Your task to perform on an android device: turn notification dots on Image 0: 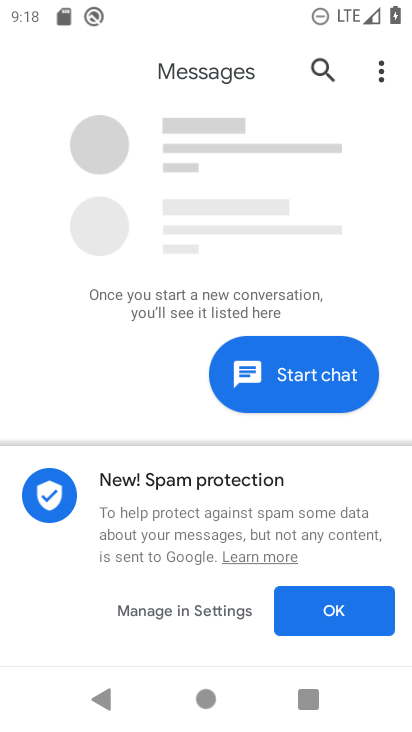
Step 0: press home button
Your task to perform on an android device: turn notification dots on Image 1: 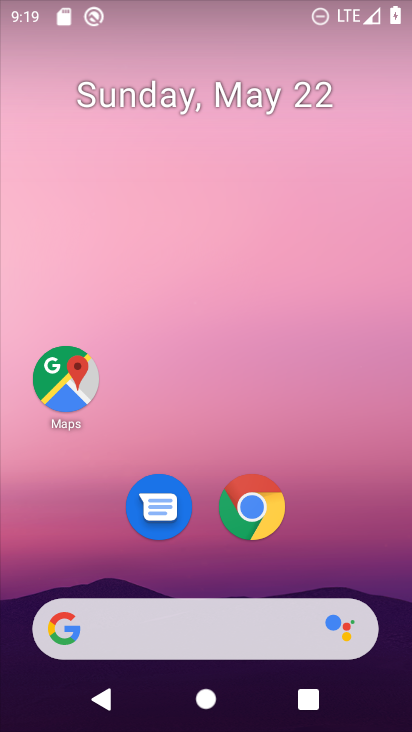
Step 1: drag from (274, 698) to (156, 3)
Your task to perform on an android device: turn notification dots on Image 2: 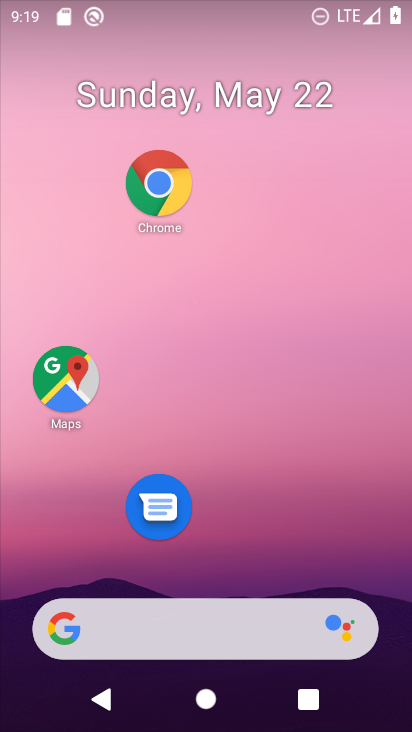
Step 2: drag from (239, 711) to (249, 6)
Your task to perform on an android device: turn notification dots on Image 3: 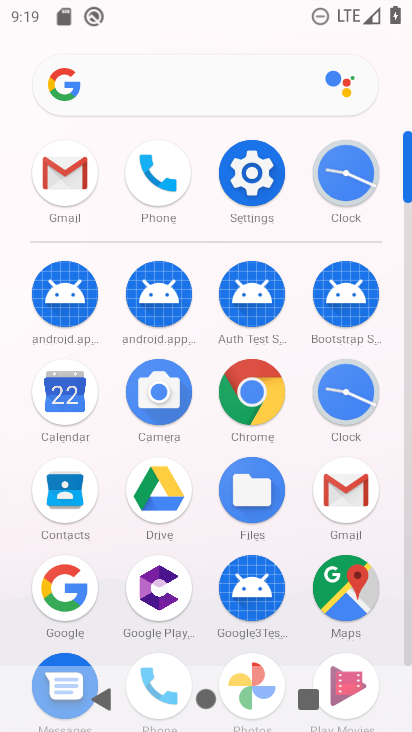
Step 3: click (257, 172)
Your task to perform on an android device: turn notification dots on Image 4: 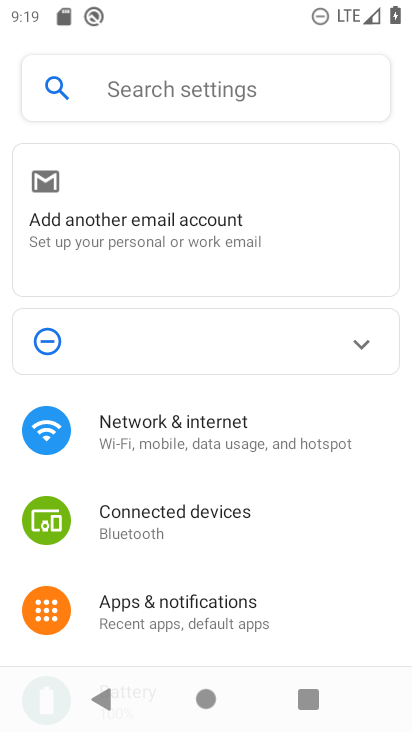
Step 4: click (237, 614)
Your task to perform on an android device: turn notification dots on Image 5: 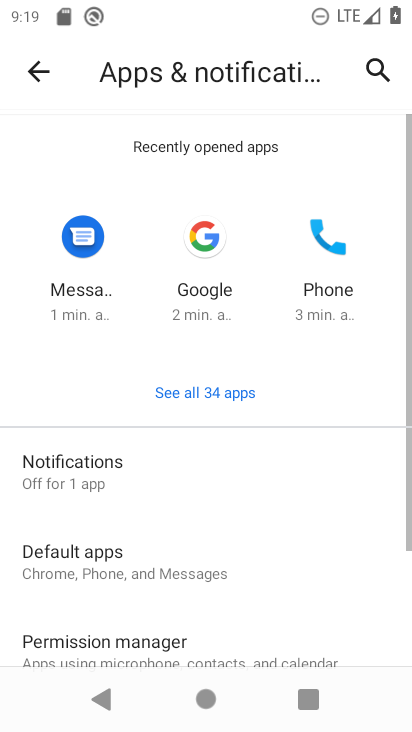
Step 5: click (95, 466)
Your task to perform on an android device: turn notification dots on Image 6: 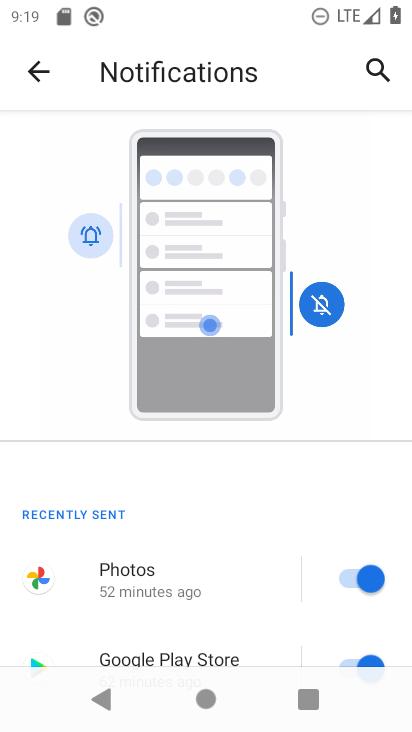
Step 6: drag from (202, 636) to (178, 72)
Your task to perform on an android device: turn notification dots on Image 7: 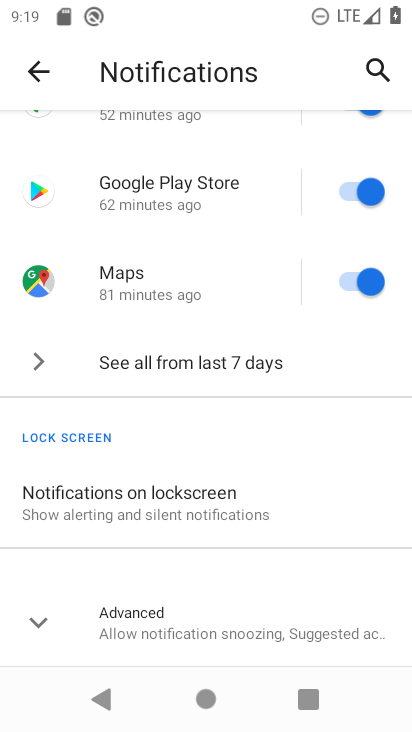
Step 7: click (242, 624)
Your task to perform on an android device: turn notification dots on Image 8: 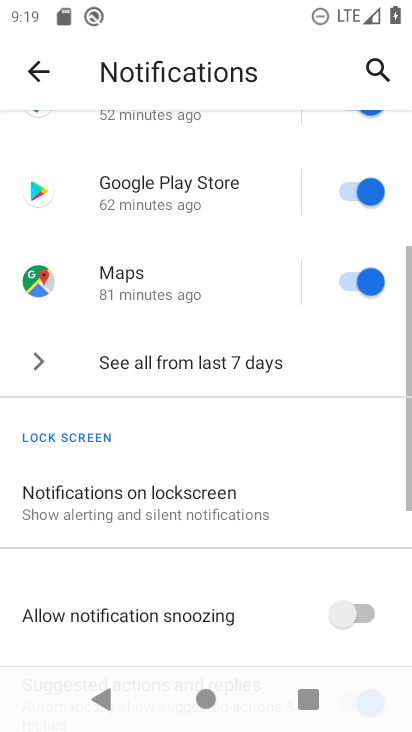
Step 8: drag from (266, 625) to (289, 171)
Your task to perform on an android device: turn notification dots on Image 9: 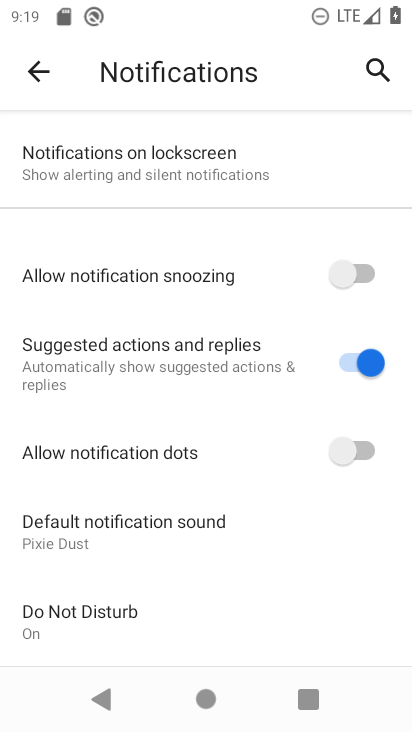
Step 9: click (353, 459)
Your task to perform on an android device: turn notification dots on Image 10: 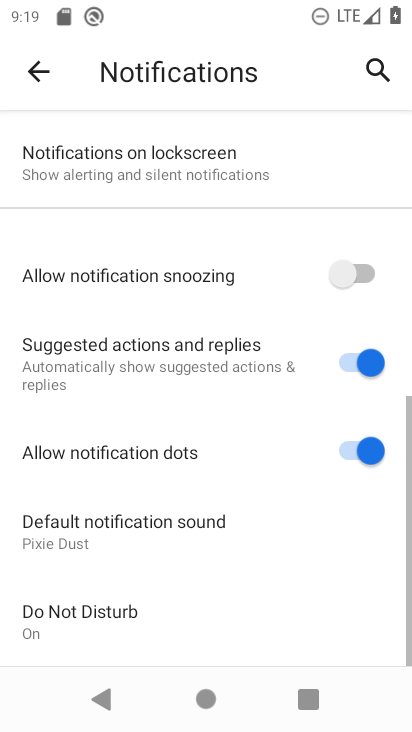
Step 10: task complete